Your task to perform on an android device: turn on notifications settings in the gmail app Image 0: 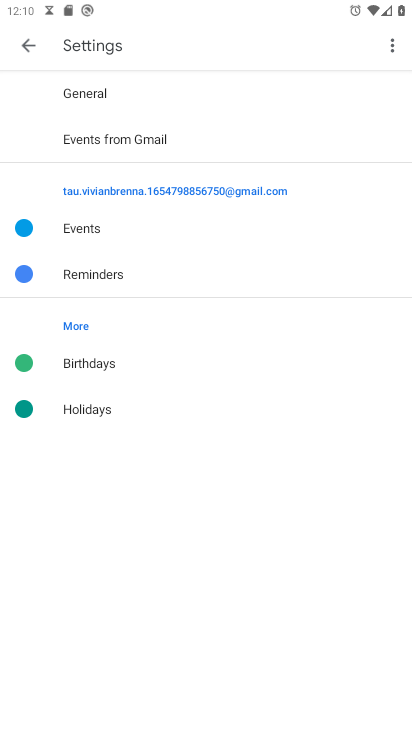
Step 0: press home button
Your task to perform on an android device: turn on notifications settings in the gmail app Image 1: 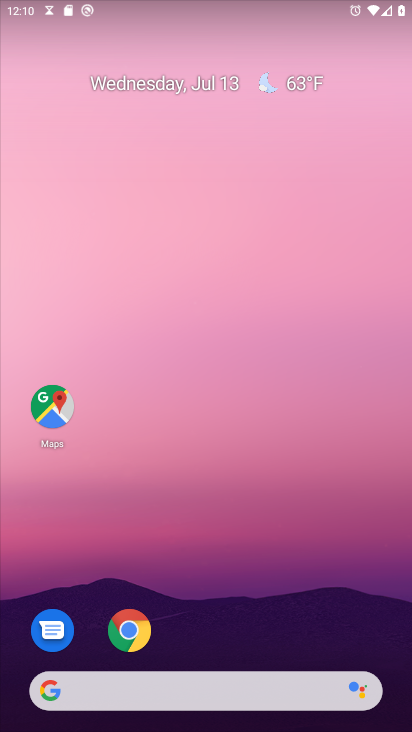
Step 1: drag from (179, 675) to (141, 235)
Your task to perform on an android device: turn on notifications settings in the gmail app Image 2: 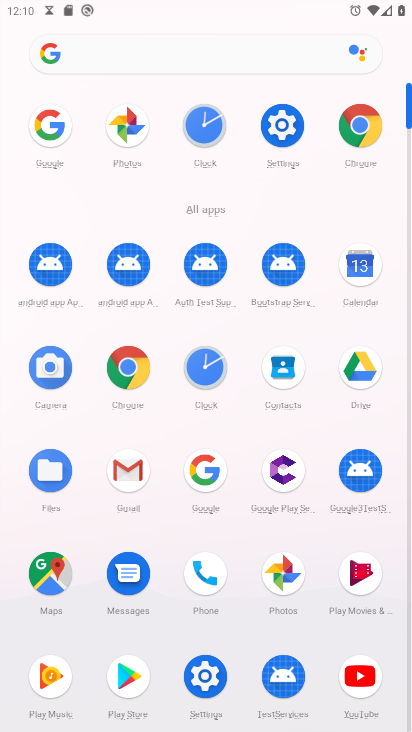
Step 2: click (125, 476)
Your task to perform on an android device: turn on notifications settings in the gmail app Image 3: 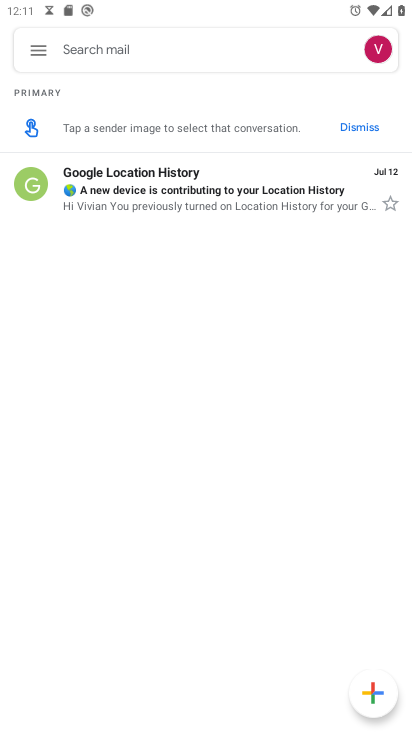
Step 3: click (32, 63)
Your task to perform on an android device: turn on notifications settings in the gmail app Image 4: 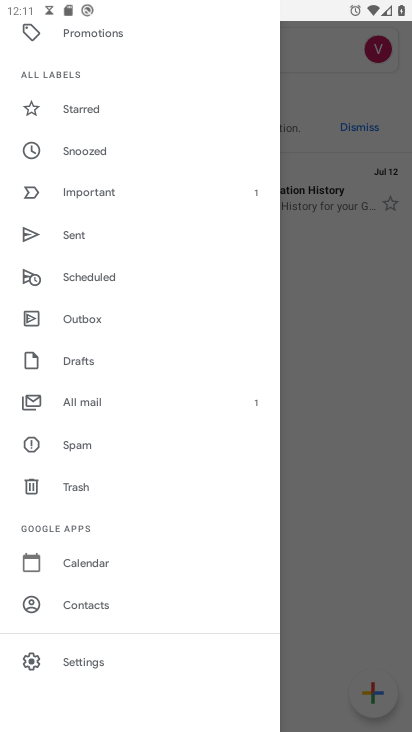
Step 4: click (92, 667)
Your task to perform on an android device: turn on notifications settings in the gmail app Image 5: 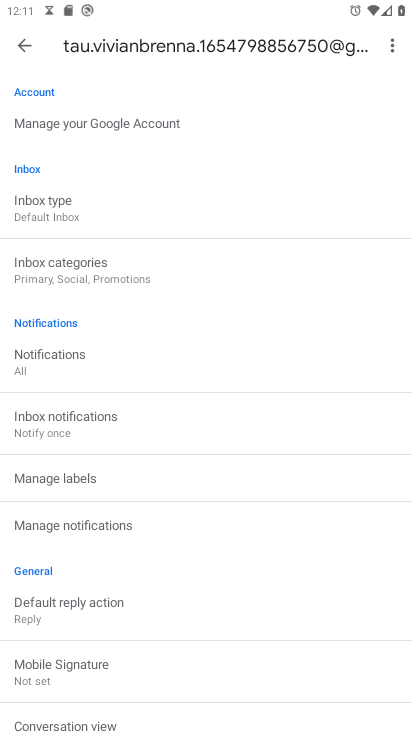
Step 5: click (77, 514)
Your task to perform on an android device: turn on notifications settings in the gmail app Image 6: 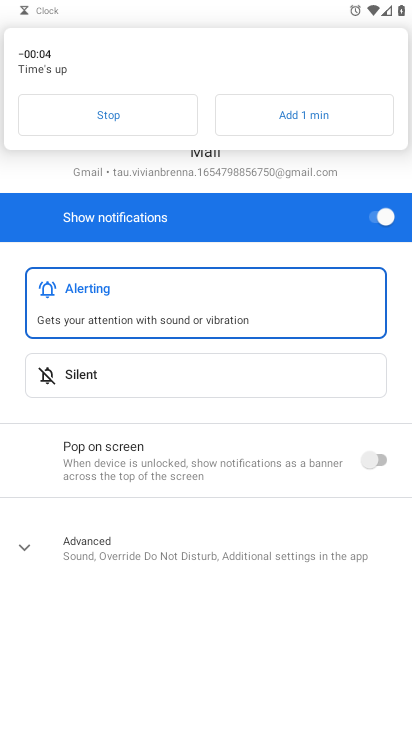
Step 6: task complete